Your task to perform on an android device: Open display settings Image 0: 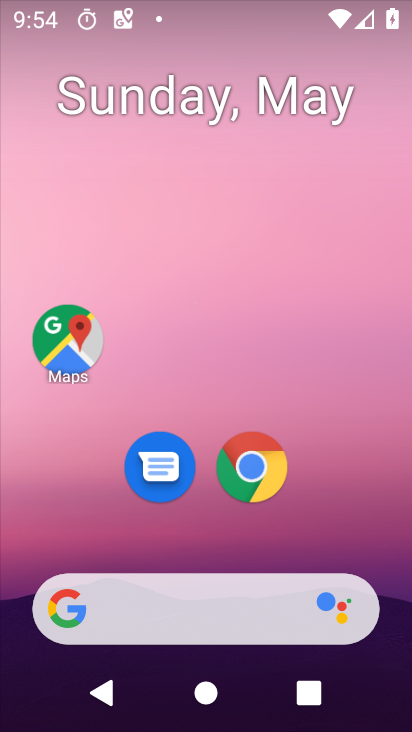
Step 0: drag from (197, 538) to (182, 204)
Your task to perform on an android device: Open display settings Image 1: 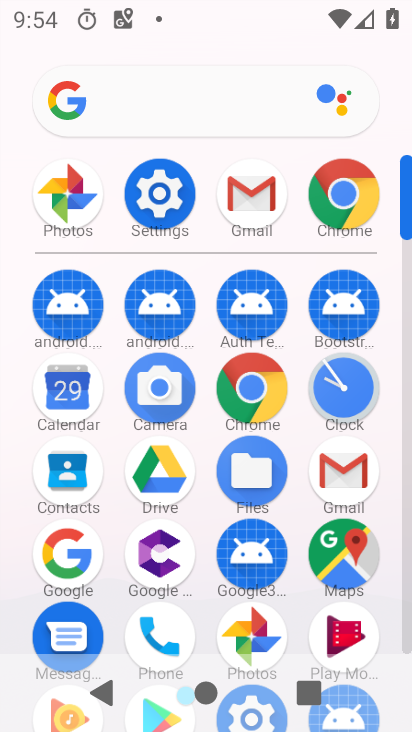
Step 1: click (169, 212)
Your task to perform on an android device: Open display settings Image 2: 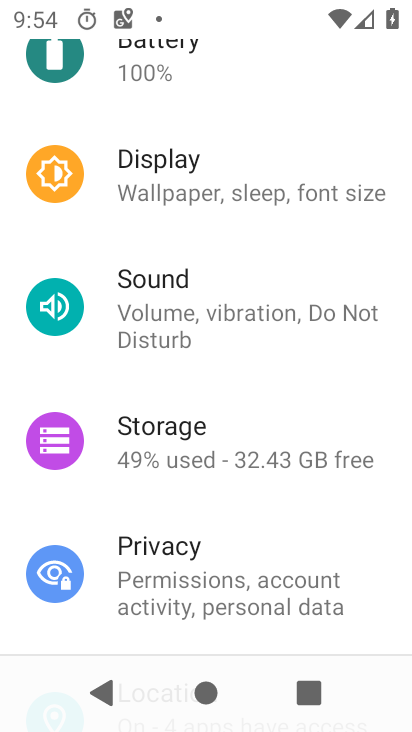
Step 2: click (161, 202)
Your task to perform on an android device: Open display settings Image 3: 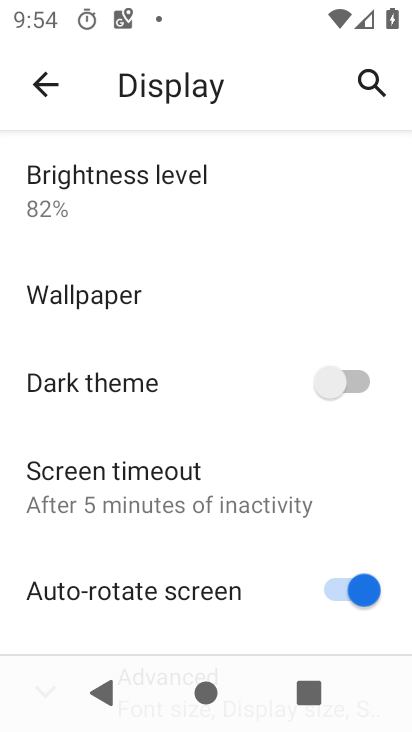
Step 3: task complete